Your task to perform on an android device: turn off priority inbox in the gmail app Image 0: 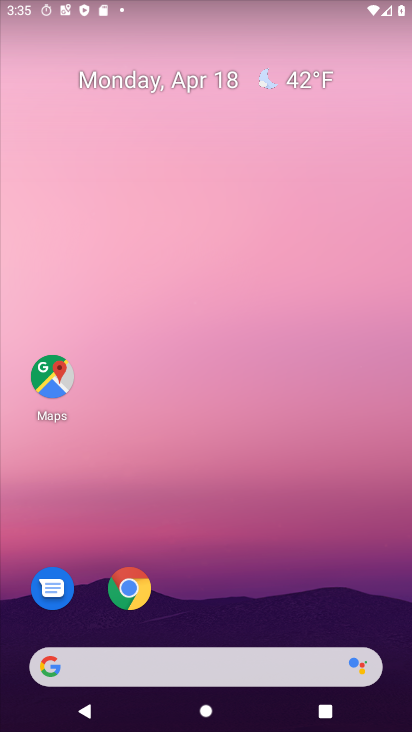
Step 0: drag from (224, 626) to (161, 18)
Your task to perform on an android device: turn off priority inbox in the gmail app Image 1: 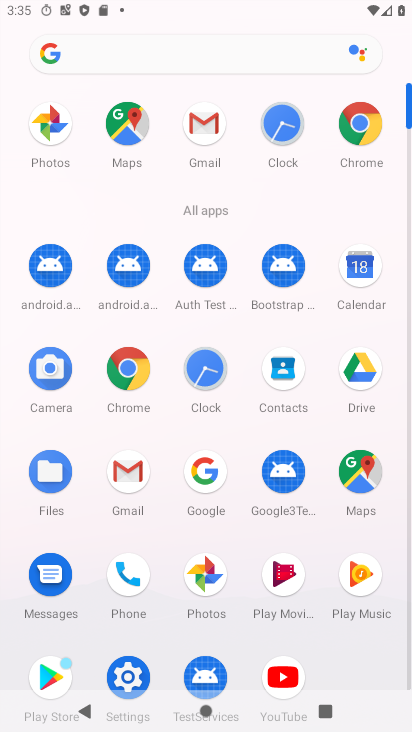
Step 1: click (205, 127)
Your task to perform on an android device: turn off priority inbox in the gmail app Image 2: 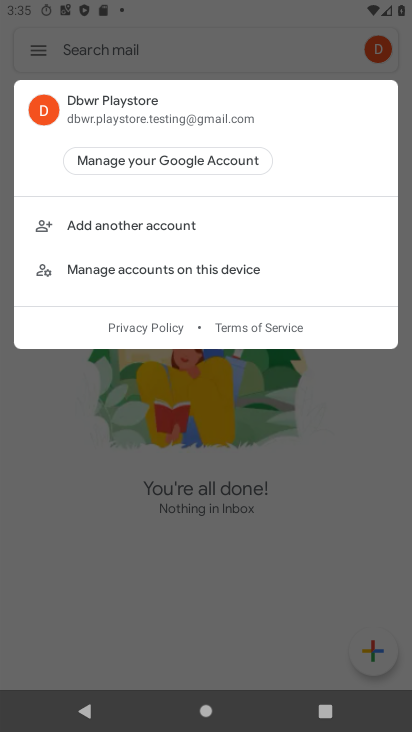
Step 2: click (131, 491)
Your task to perform on an android device: turn off priority inbox in the gmail app Image 3: 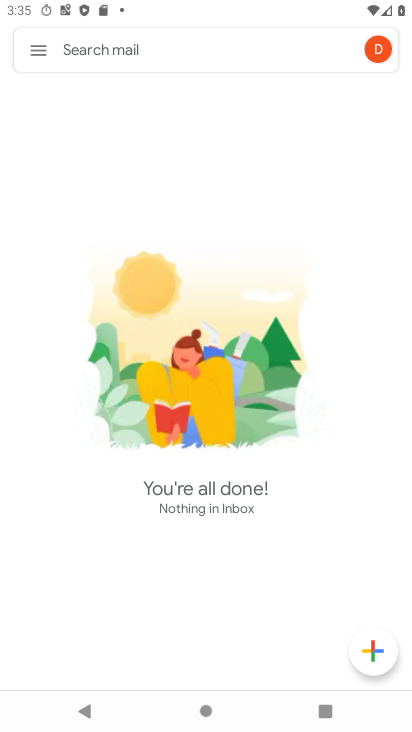
Step 3: click (44, 66)
Your task to perform on an android device: turn off priority inbox in the gmail app Image 4: 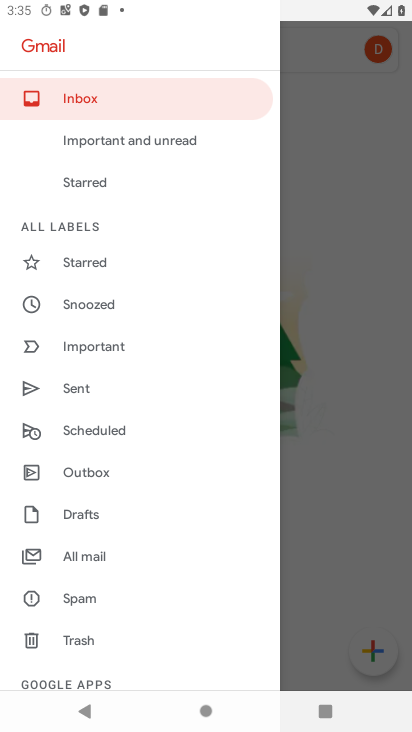
Step 4: drag from (100, 618) to (104, 135)
Your task to perform on an android device: turn off priority inbox in the gmail app Image 5: 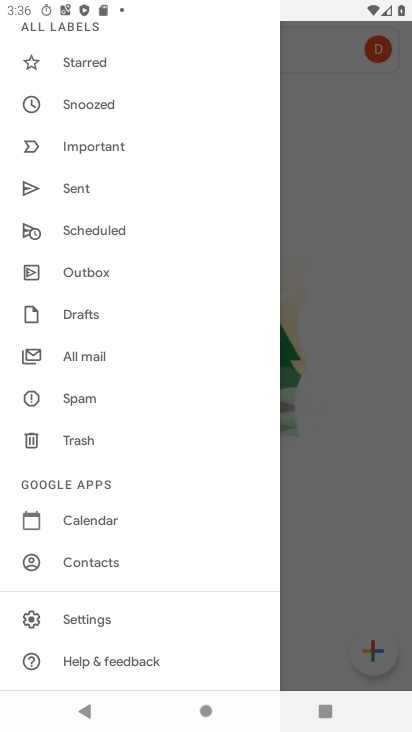
Step 5: click (94, 619)
Your task to perform on an android device: turn off priority inbox in the gmail app Image 6: 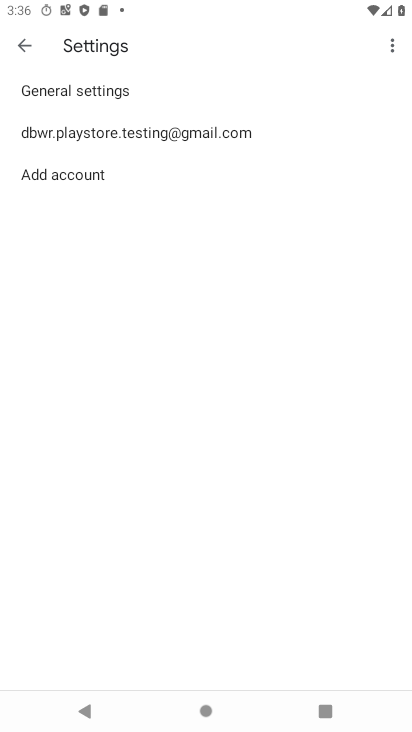
Step 6: click (190, 129)
Your task to perform on an android device: turn off priority inbox in the gmail app Image 7: 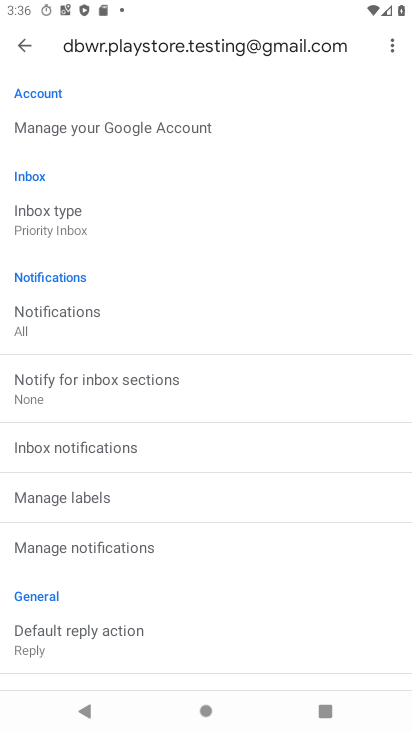
Step 7: click (51, 213)
Your task to perform on an android device: turn off priority inbox in the gmail app Image 8: 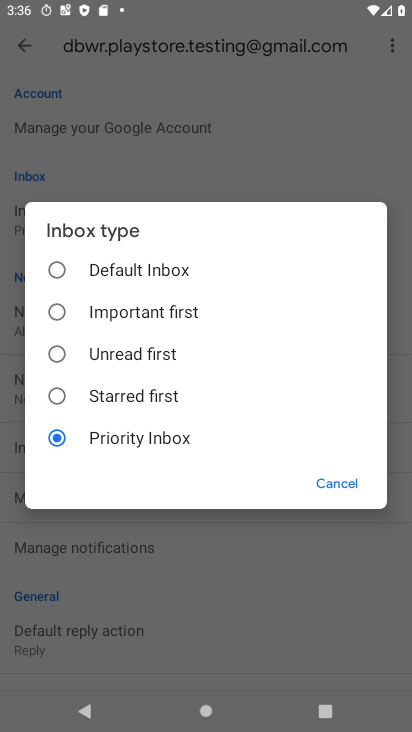
Step 8: task complete